Your task to perform on an android device: Find coffee shops on Maps Image 0: 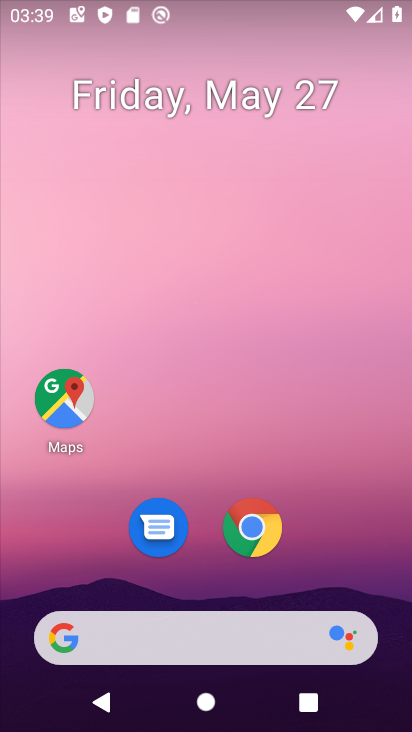
Step 0: drag from (375, 574) to (368, 265)
Your task to perform on an android device: Find coffee shops on Maps Image 1: 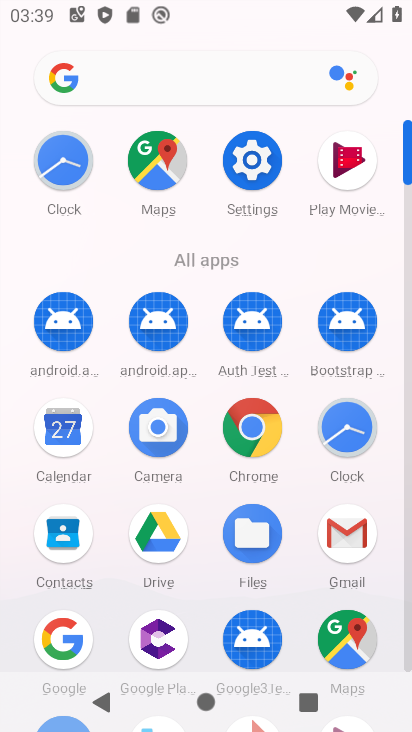
Step 1: click (340, 645)
Your task to perform on an android device: Find coffee shops on Maps Image 2: 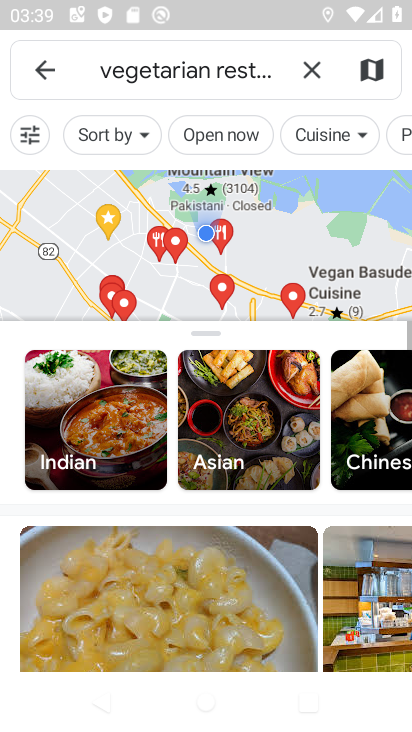
Step 2: click (303, 77)
Your task to perform on an android device: Find coffee shops on Maps Image 3: 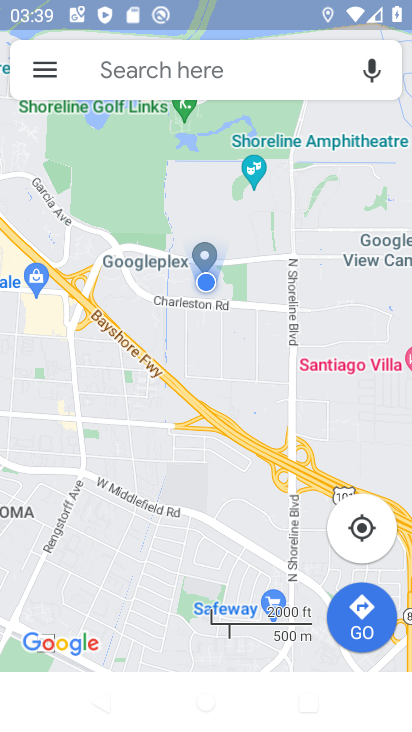
Step 3: click (214, 64)
Your task to perform on an android device: Find coffee shops on Maps Image 4: 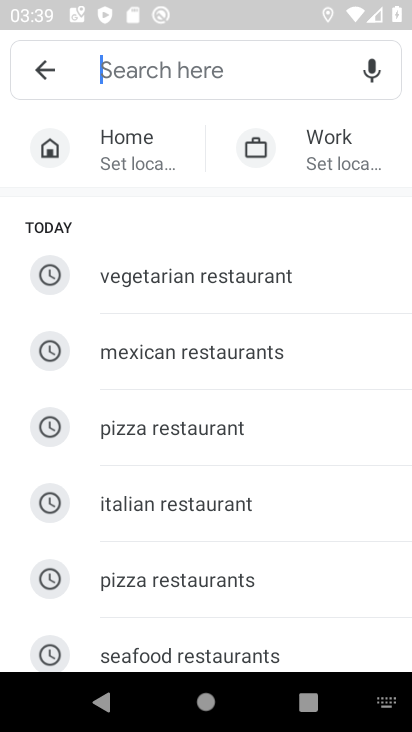
Step 4: type "coffee shops "
Your task to perform on an android device: Find coffee shops on Maps Image 5: 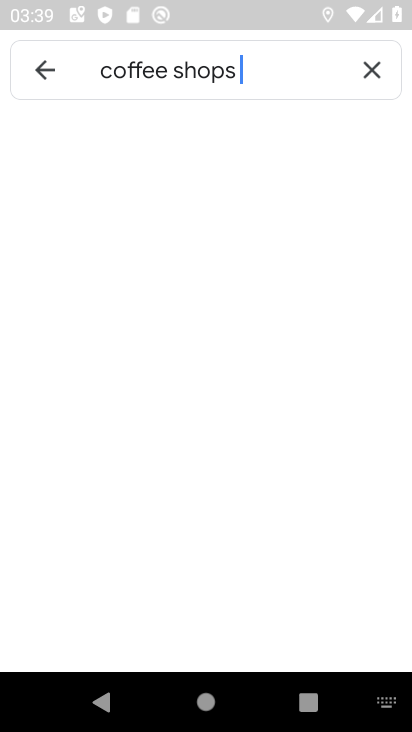
Step 5: type ""
Your task to perform on an android device: Find coffee shops on Maps Image 6: 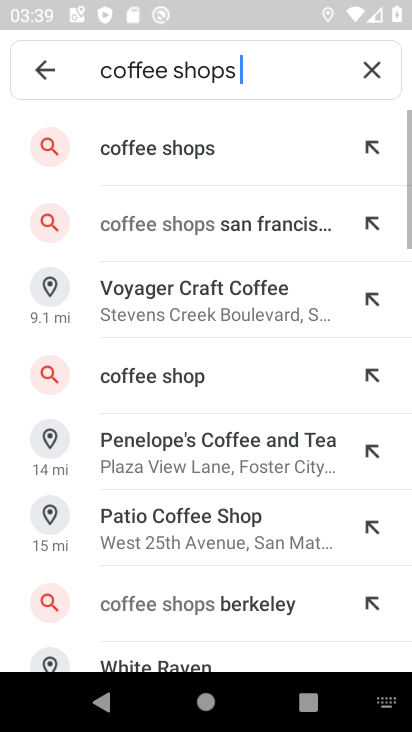
Step 6: click (166, 138)
Your task to perform on an android device: Find coffee shops on Maps Image 7: 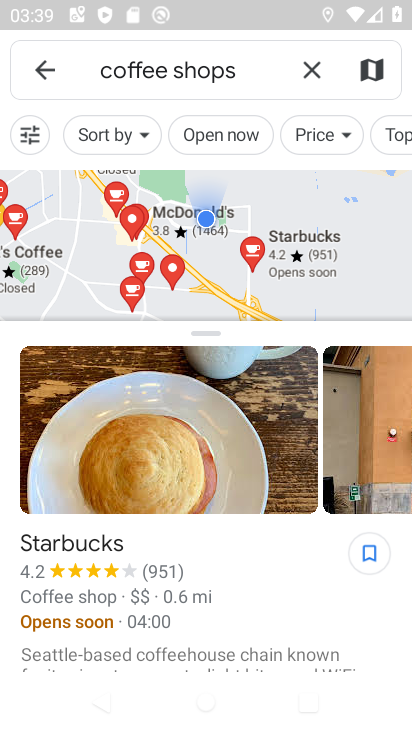
Step 7: task complete